Your task to perform on an android device: turn off priority inbox in the gmail app Image 0: 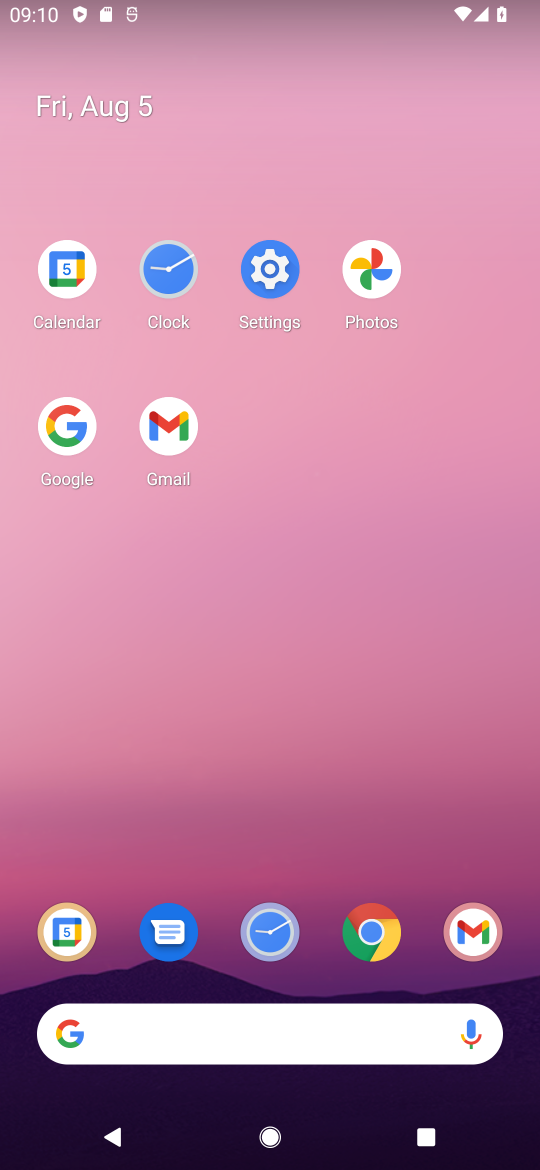
Step 0: click (164, 425)
Your task to perform on an android device: turn off priority inbox in the gmail app Image 1: 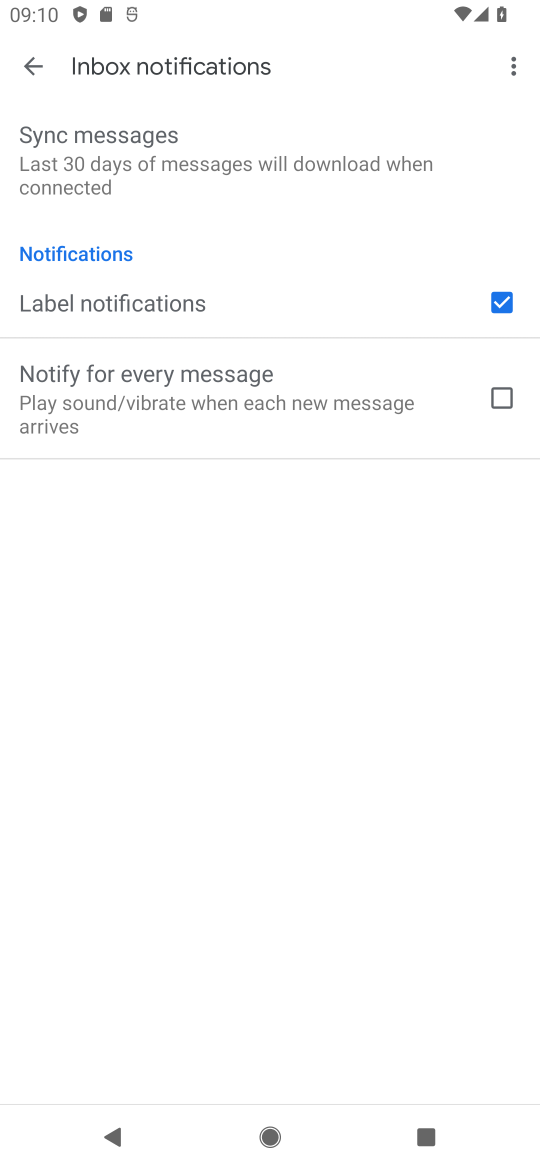
Step 1: click (23, 75)
Your task to perform on an android device: turn off priority inbox in the gmail app Image 2: 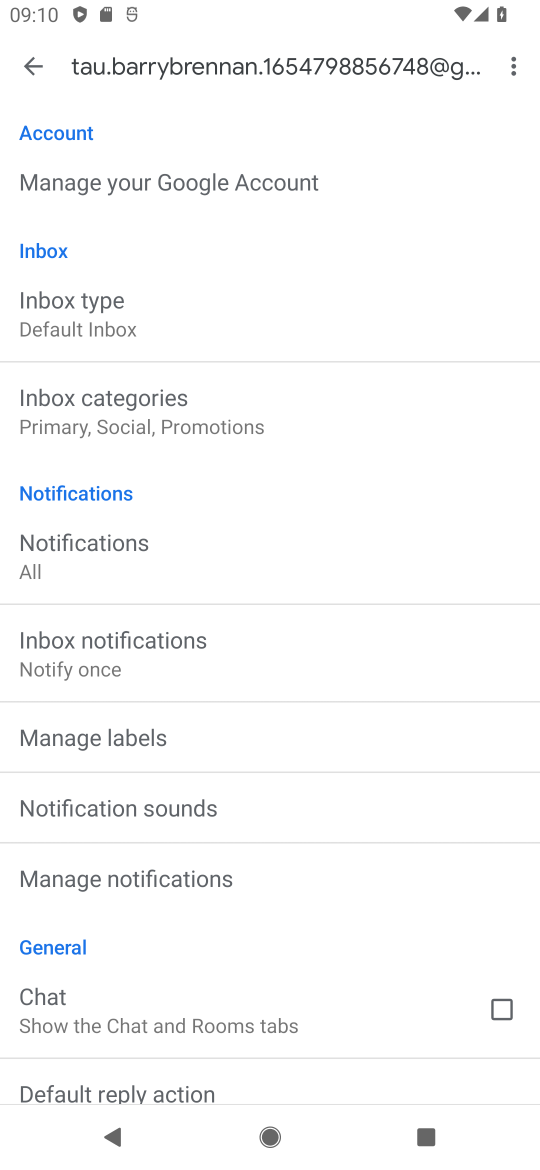
Step 2: click (142, 328)
Your task to perform on an android device: turn off priority inbox in the gmail app Image 3: 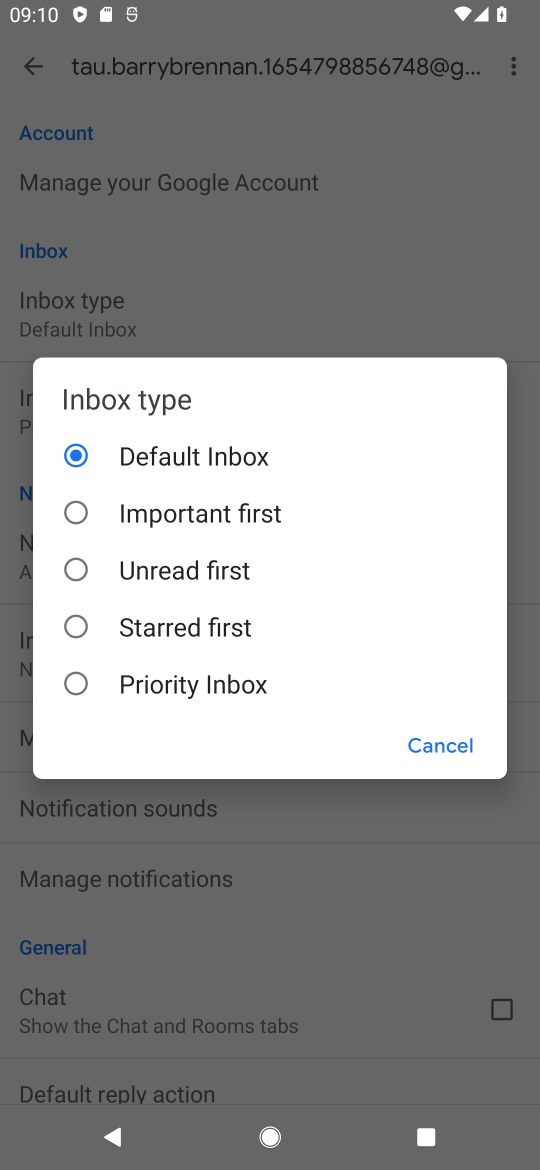
Step 3: click (213, 689)
Your task to perform on an android device: turn off priority inbox in the gmail app Image 4: 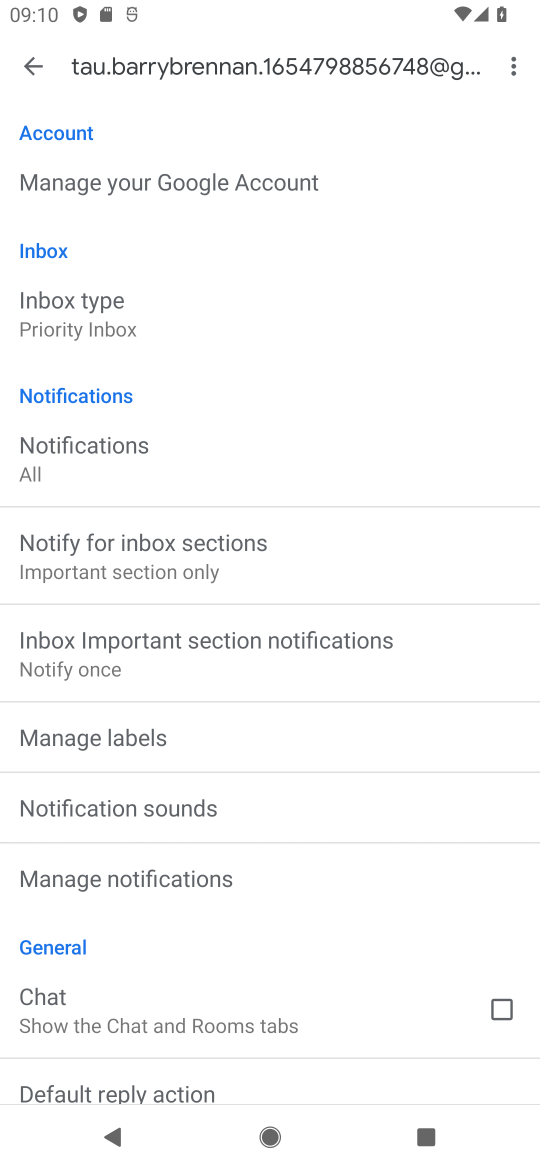
Step 4: task complete